Your task to perform on an android device: change the clock display to show seconds Image 0: 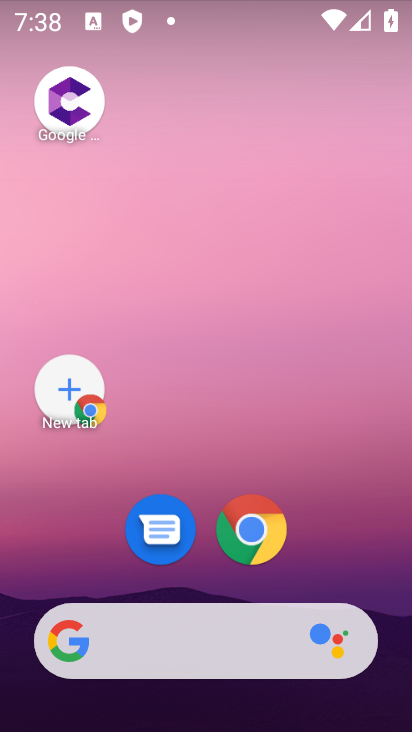
Step 0: drag from (337, 534) to (314, 140)
Your task to perform on an android device: change the clock display to show seconds Image 1: 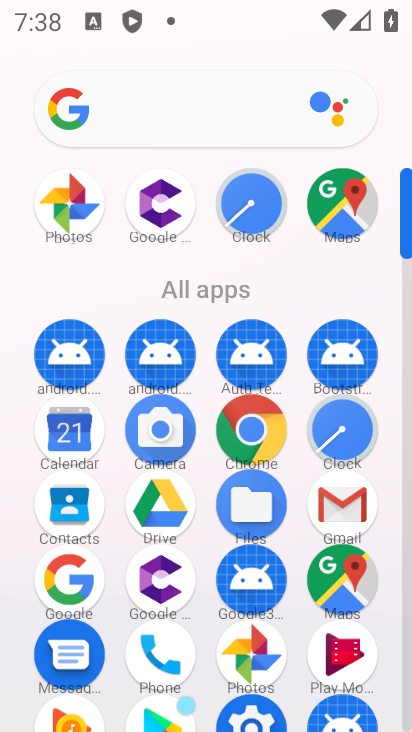
Step 1: click (262, 207)
Your task to perform on an android device: change the clock display to show seconds Image 2: 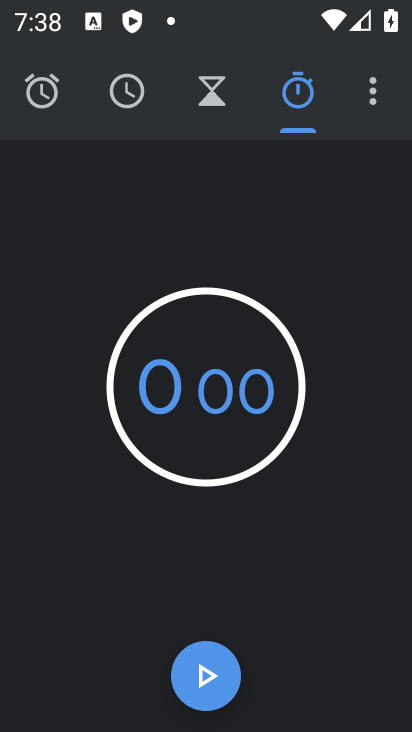
Step 2: click (370, 89)
Your task to perform on an android device: change the clock display to show seconds Image 3: 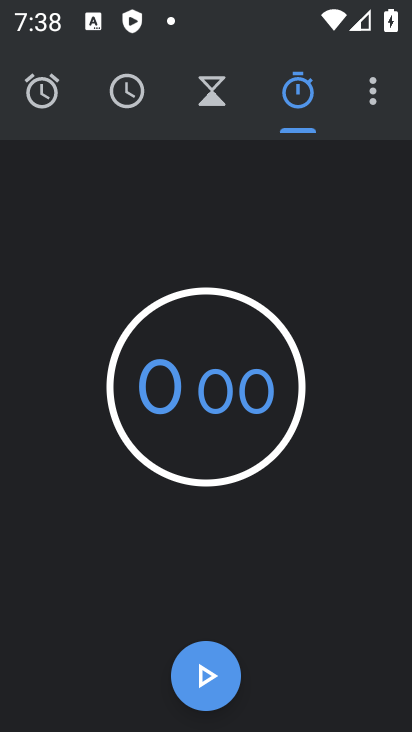
Step 3: click (374, 106)
Your task to perform on an android device: change the clock display to show seconds Image 4: 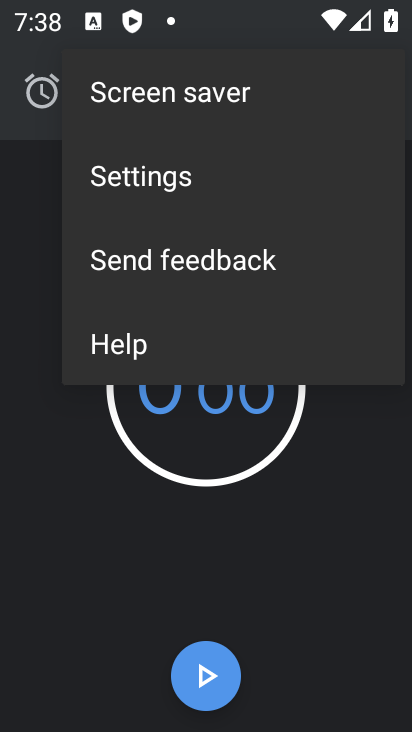
Step 4: click (171, 168)
Your task to perform on an android device: change the clock display to show seconds Image 5: 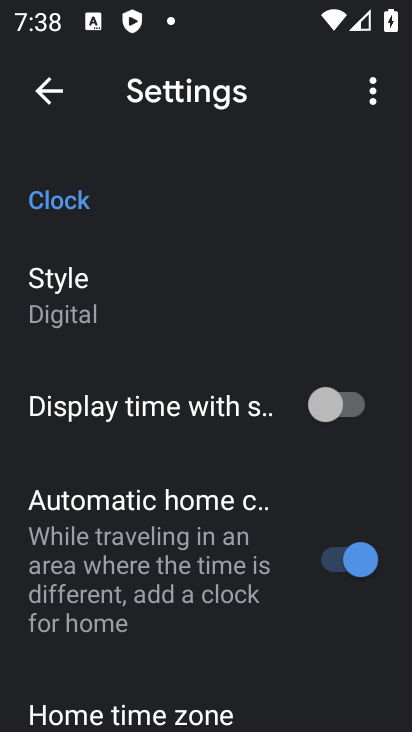
Step 5: click (352, 410)
Your task to perform on an android device: change the clock display to show seconds Image 6: 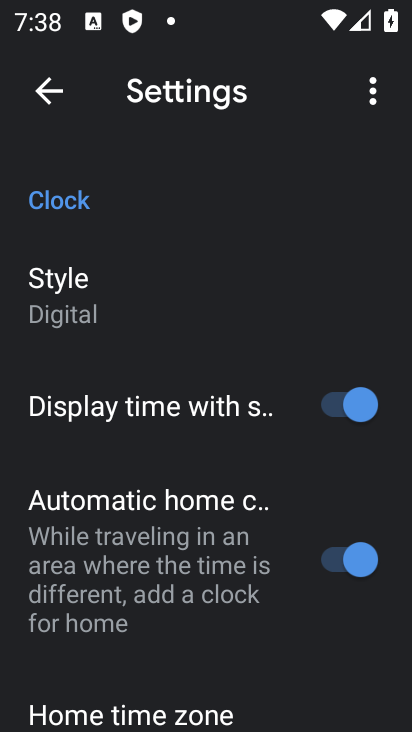
Step 6: task complete